Your task to perform on an android device: add a contact in the contacts app Image 0: 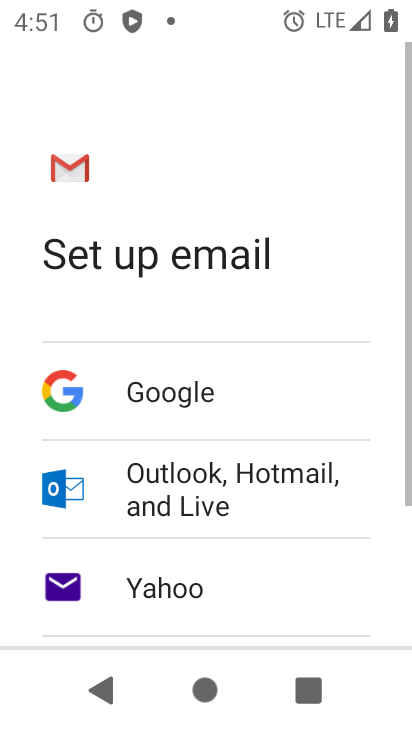
Step 0: press home button
Your task to perform on an android device: add a contact in the contacts app Image 1: 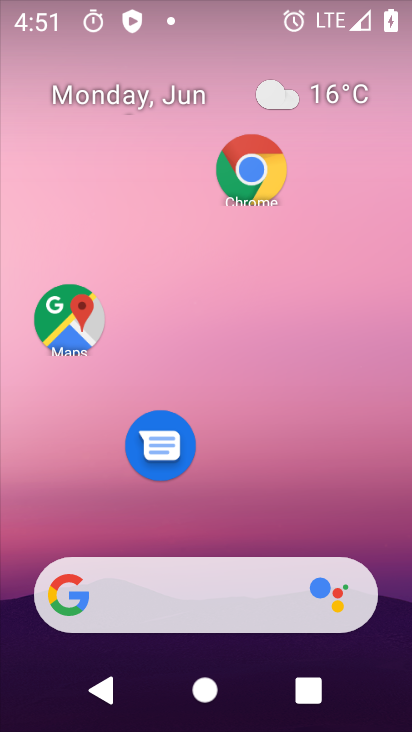
Step 1: drag from (197, 528) to (214, 112)
Your task to perform on an android device: add a contact in the contacts app Image 2: 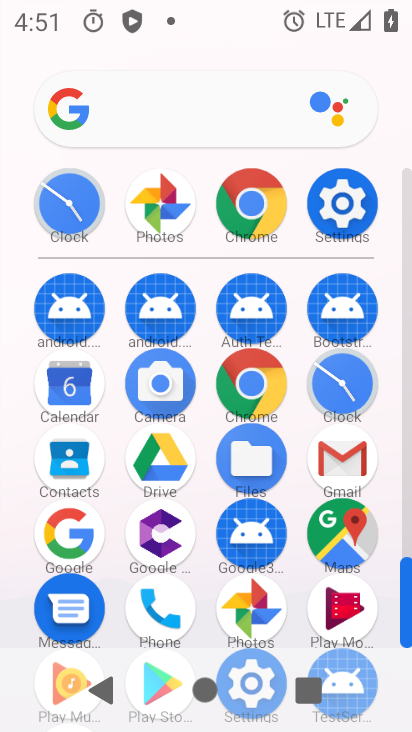
Step 2: click (64, 482)
Your task to perform on an android device: add a contact in the contacts app Image 3: 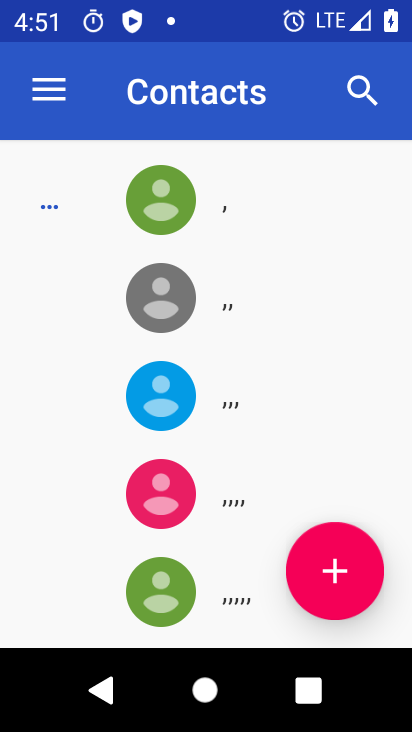
Step 3: click (345, 570)
Your task to perform on an android device: add a contact in the contacts app Image 4: 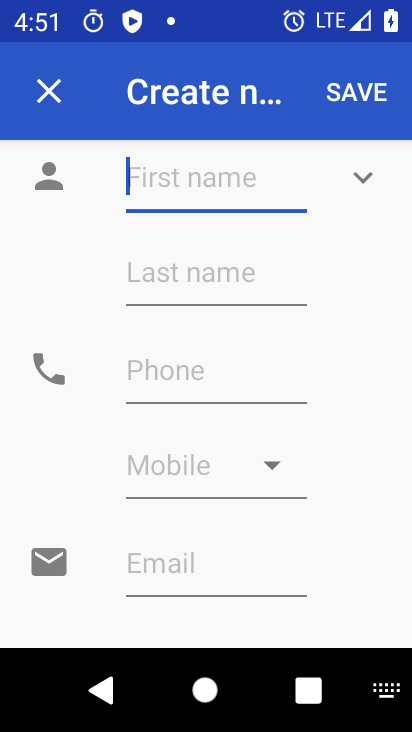
Step 4: click (239, 183)
Your task to perform on an android device: add a contact in the contacts app Image 5: 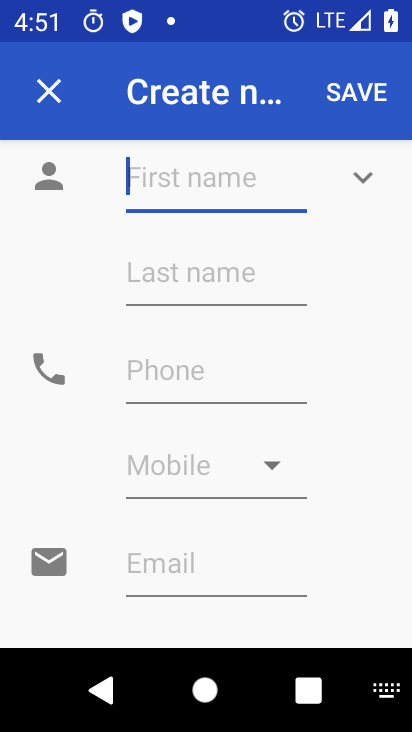
Step 5: type "Raju"
Your task to perform on an android device: add a contact in the contacts app Image 6: 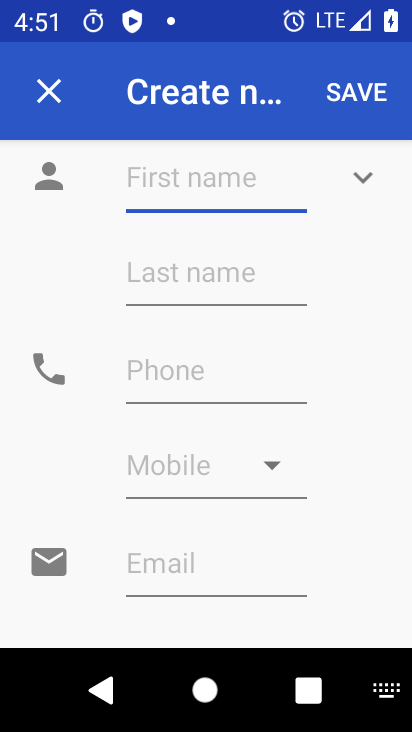
Step 6: click (216, 266)
Your task to perform on an android device: add a contact in the contacts app Image 7: 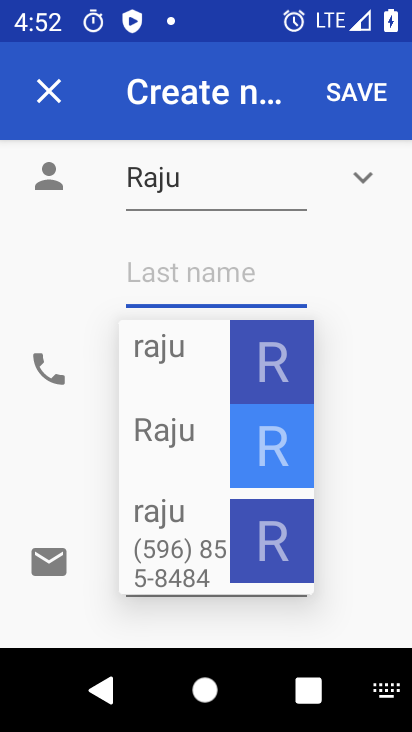
Step 7: type "venkat"
Your task to perform on an android device: add a contact in the contacts app Image 8: 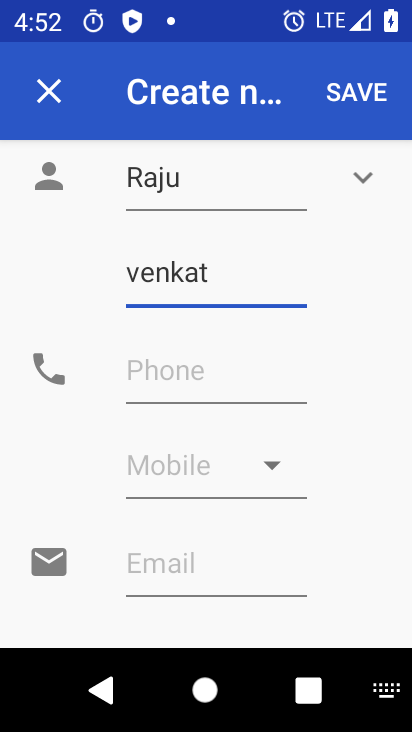
Step 8: click (216, 388)
Your task to perform on an android device: add a contact in the contacts app Image 9: 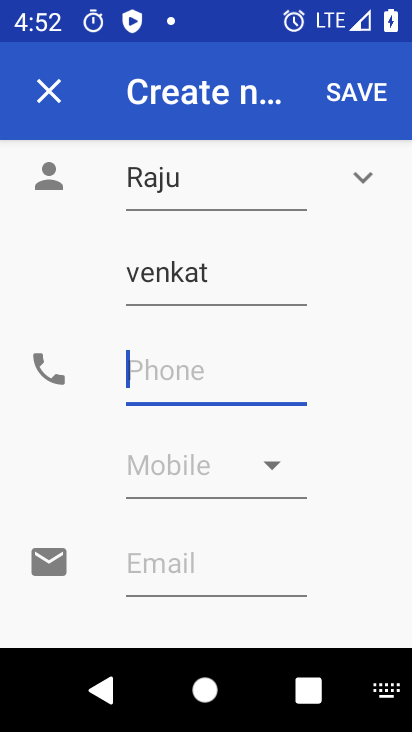
Step 9: type "7887787790"
Your task to perform on an android device: add a contact in the contacts app Image 10: 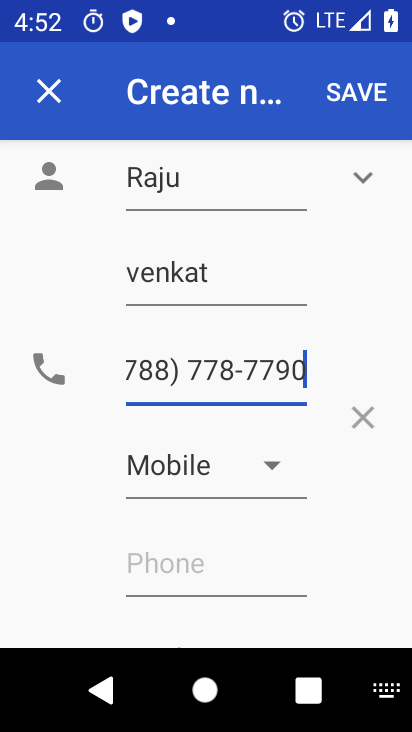
Step 10: click (360, 84)
Your task to perform on an android device: add a contact in the contacts app Image 11: 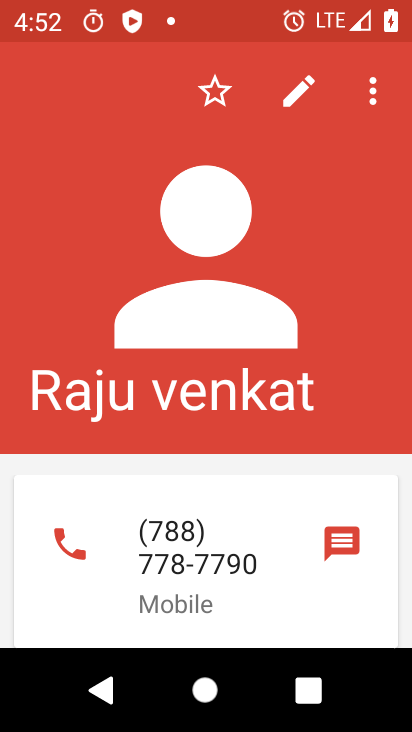
Step 11: task complete